Your task to perform on an android device: turn off priority inbox in the gmail app Image 0: 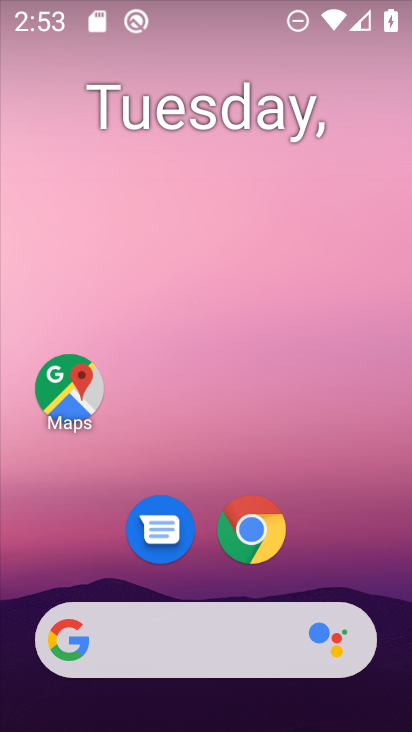
Step 0: drag from (197, 584) to (257, 47)
Your task to perform on an android device: turn off priority inbox in the gmail app Image 1: 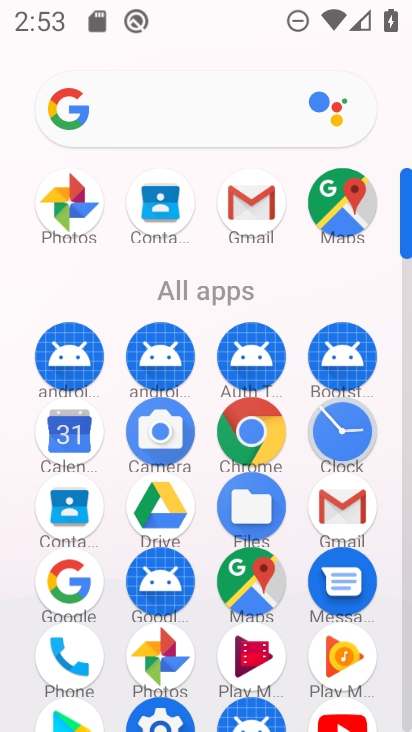
Step 1: click (248, 193)
Your task to perform on an android device: turn off priority inbox in the gmail app Image 2: 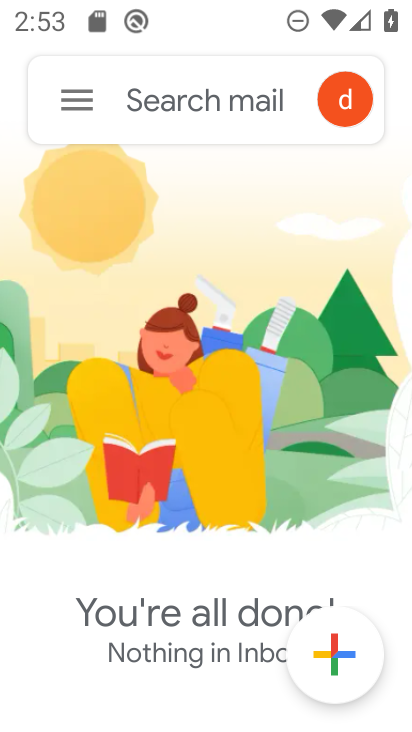
Step 2: click (80, 98)
Your task to perform on an android device: turn off priority inbox in the gmail app Image 3: 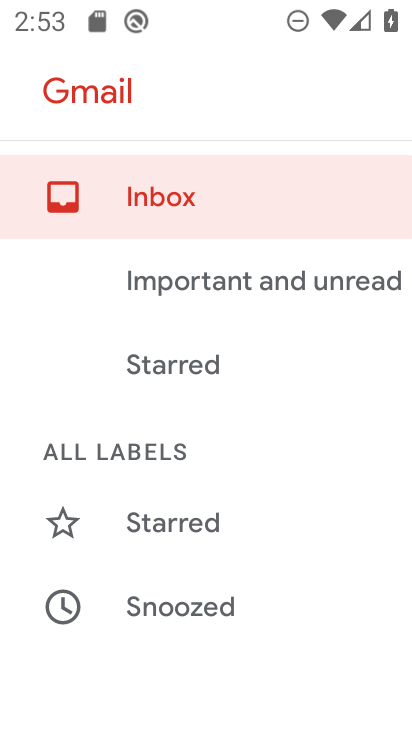
Step 3: drag from (188, 578) to (249, 73)
Your task to perform on an android device: turn off priority inbox in the gmail app Image 4: 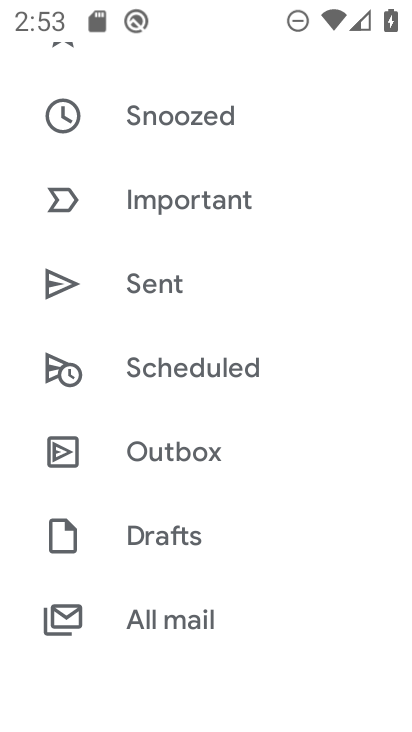
Step 4: drag from (197, 587) to (254, 69)
Your task to perform on an android device: turn off priority inbox in the gmail app Image 5: 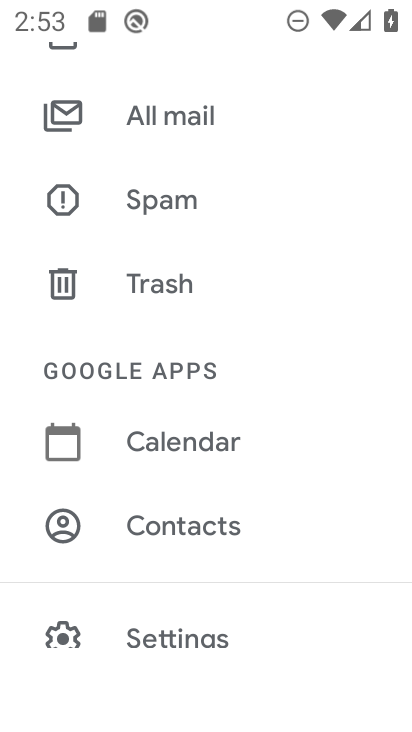
Step 5: click (186, 632)
Your task to perform on an android device: turn off priority inbox in the gmail app Image 6: 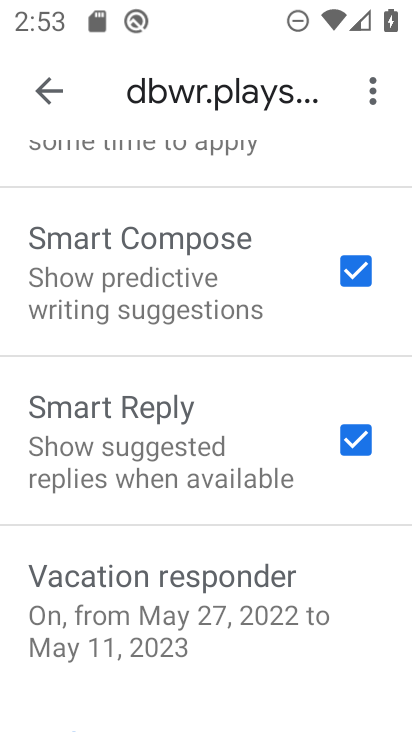
Step 6: drag from (190, 191) to (184, 701)
Your task to perform on an android device: turn off priority inbox in the gmail app Image 7: 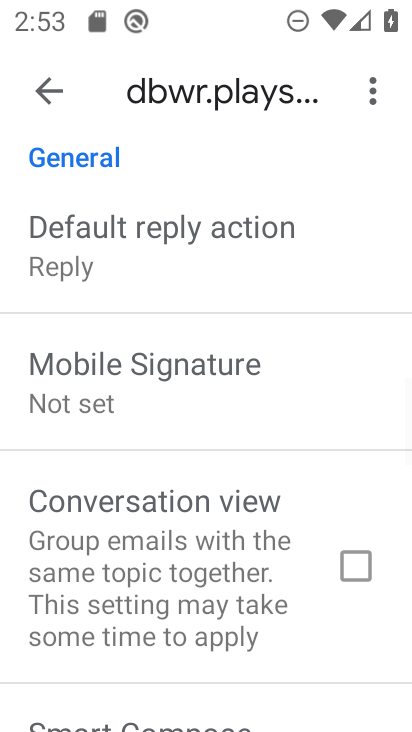
Step 7: drag from (165, 278) to (149, 707)
Your task to perform on an android device: turn off priority inbox in the gmail app Image 8: 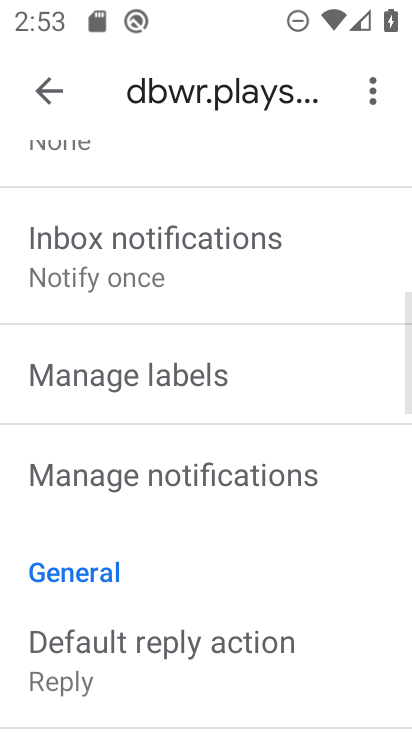
Step 8: drag from (148, 220) to (146, 670)
Your task to perform on an android device: turn off priority inbox in the gmail app Image 9: 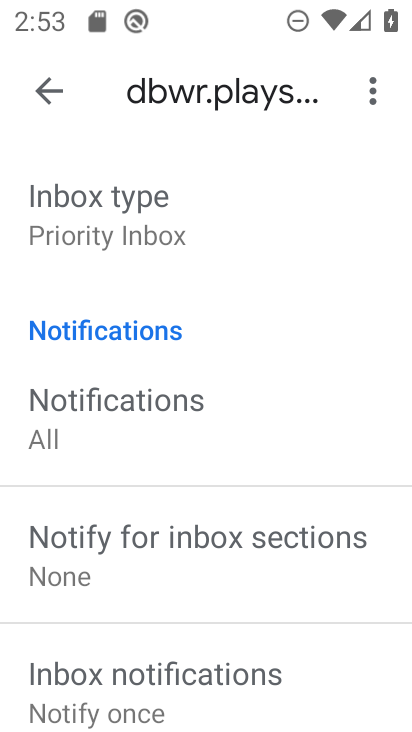
Step 9: click (124, 232)
Your task to perform on an android device: turn off priority inbox in the gmail app Image 10: 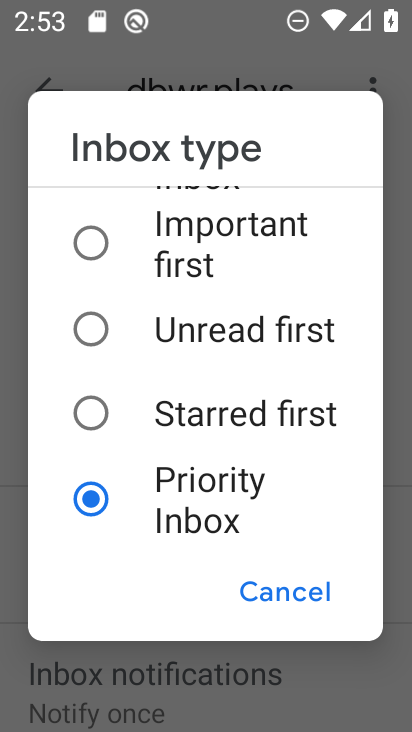
Step 10: drag from (231, 233) to (242, 608)
Your task to perform on an android device: turn off priority inbox in the gmail app Image 11: 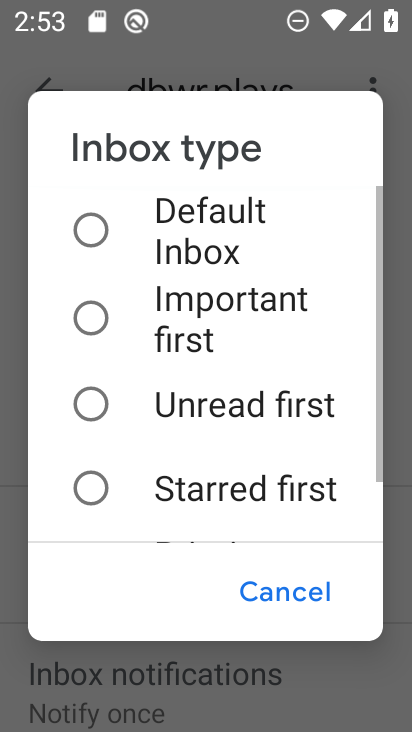
Step 11: click (90, 231)
Your task to perform on an android device: turn off priority inbox in the gmail app Image 12: 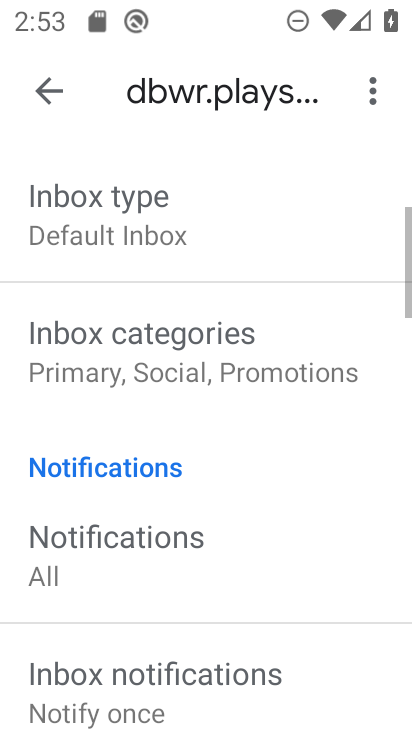
Step 12: task complete